Your task to perform on an android device: turn off location history Image 0: 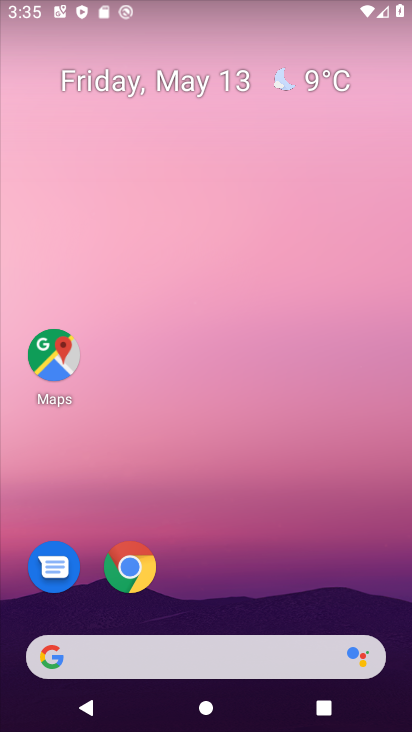
Step 0: drag from (171, 601) to (212, 120)
Your task to perform on an android device: turn off location history Image 1: 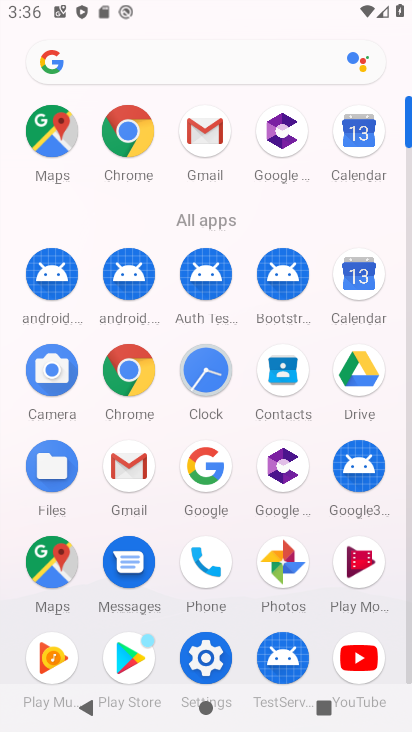
Step 1: click (207, 659)
Your task to perform on an android device: turn off location history Image 2: 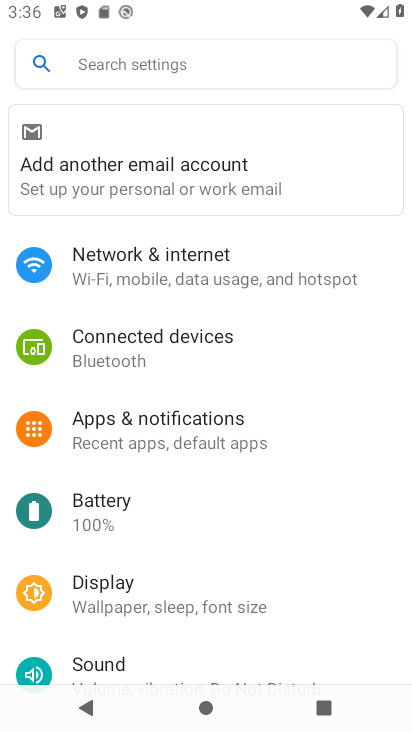
Step 2: drag from (253, 603) to (215, 335)
Your task to perform on an android device: turn off location history Image 3: 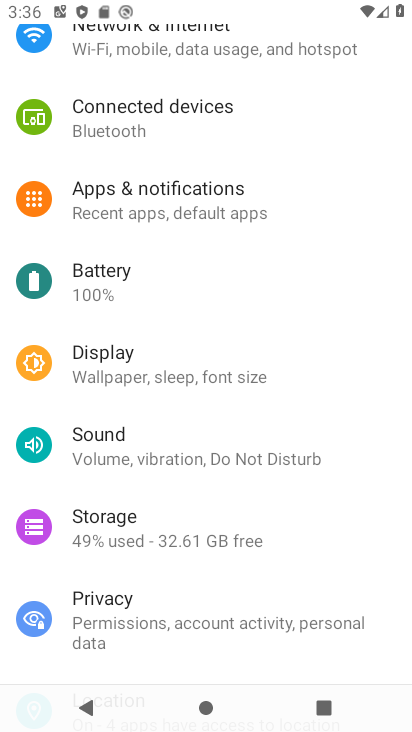
Step 3: drag from (196, 284) to (217, 75)
Your task to perform on an android device: turn off location history Image 4: 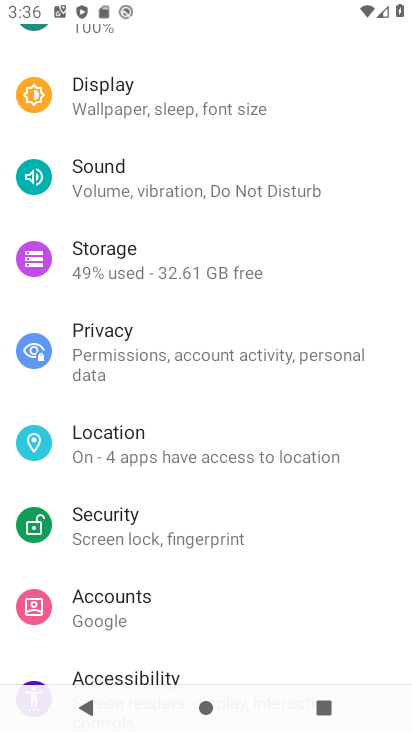
Step 4: click (160, 455)
Your task to perform on an android device: turn off location history Image 5: 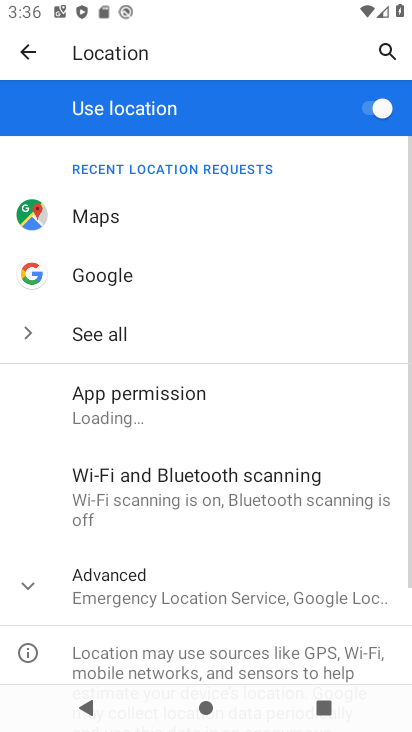
Step 5: drag from (195, 571) to (173, 374)
Your task to perform on an android device: turn off location history Image 6: 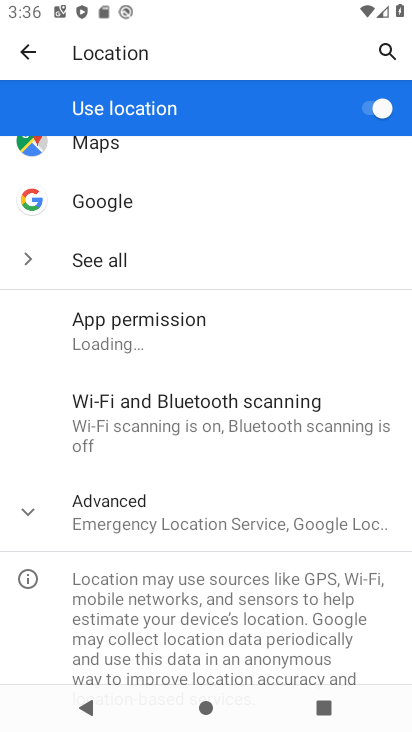
Step 6: click (102, 505)
Your task to perform on an android device: turn off location history Image 7: 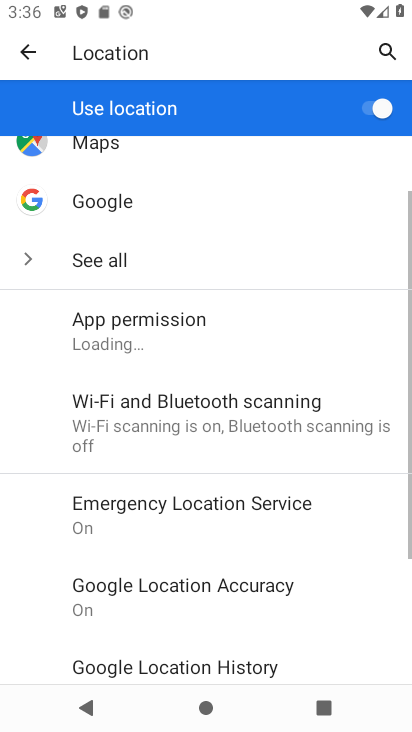
Step 7: drag from (224, 499) to (209, 325)
Your task to perform on an android device: turn off location history Image 8: 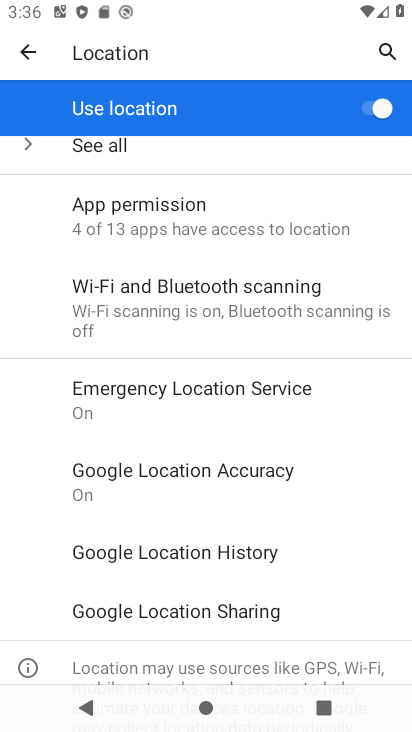
Step 8: click (218, 559)
Your task to perform on an android device: turn off location history Image 9: 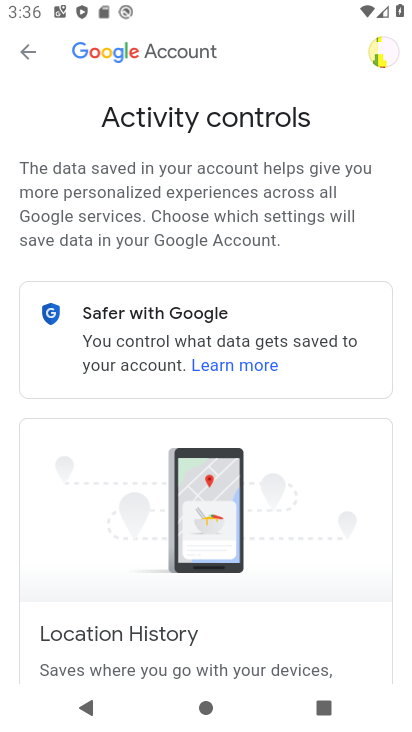
Step 9: drag from (224, 647) to (239, 121)
Your task to perform on an android device: turn off location history Image 10: 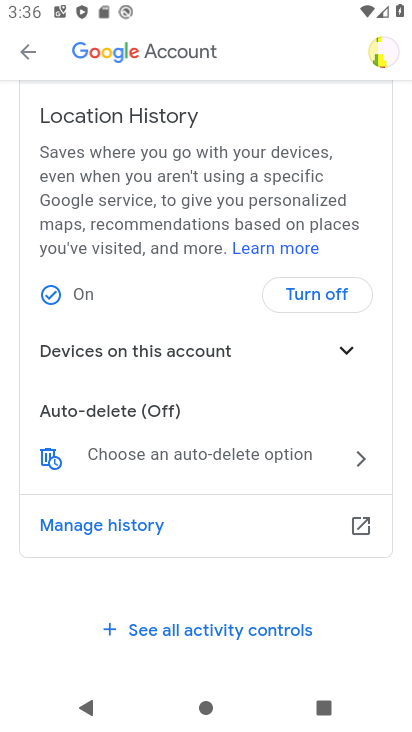
Step 10: click (292, 303)
Your task to perform on an android device: turn off location history Image 11: 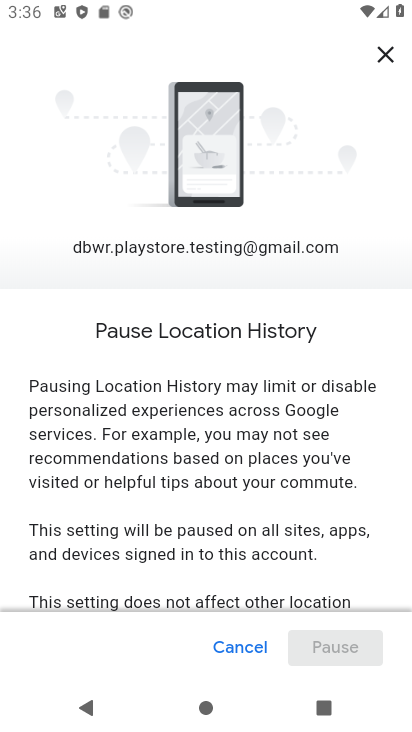
Step 11: drag from (316, 532) to (300, 45)
Your task to perform on an android device: turn off location history Image 12: 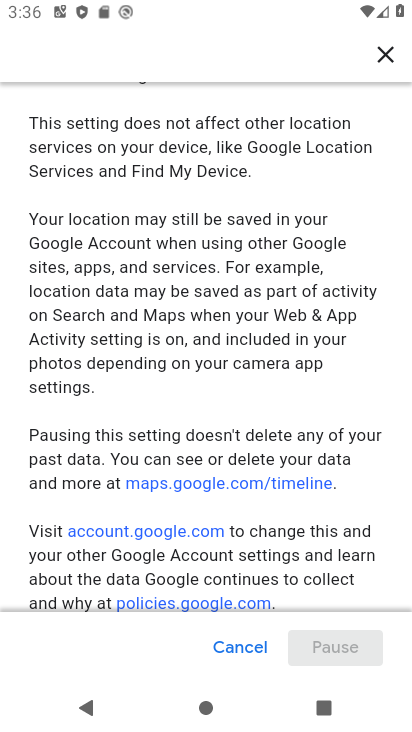
Step 12: drag from (299, 526) to (328, 22)
Your task to perform on an android device: turn off location history Image 13: 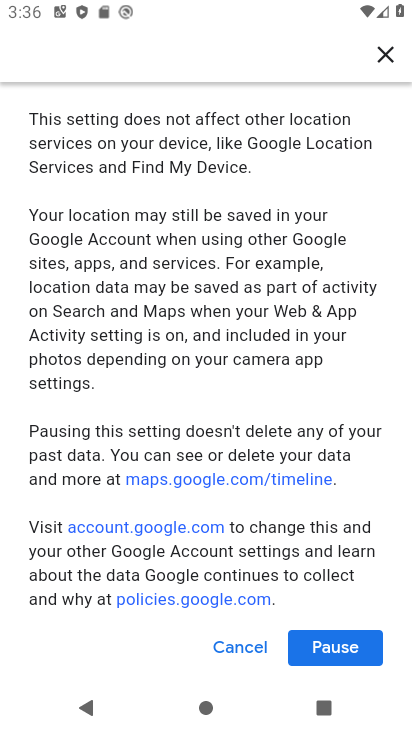
Step 13: drag from (296, 672) to (321, 418)
Your task to perform on an android device: turn off location history Image 14: 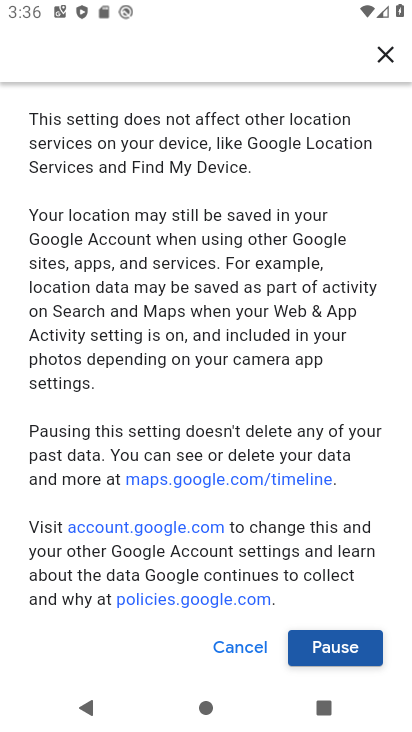
Step 14: click (322, 656)
Your task to perform on an android device: turn off location history Image 15: 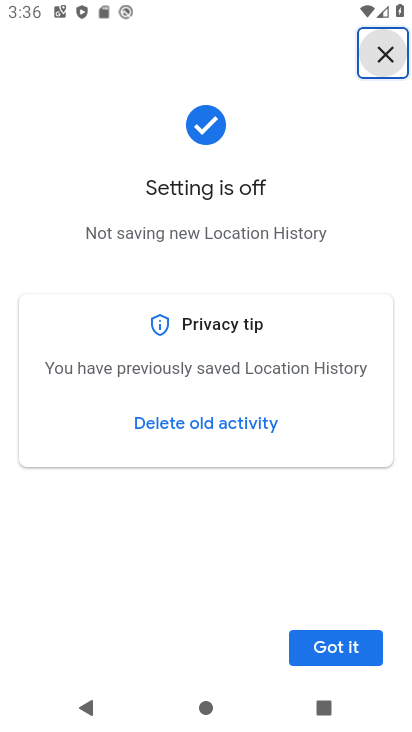
Step 15: click (322, 656)
Your task to perform on an android device: turn off location history Image 16: 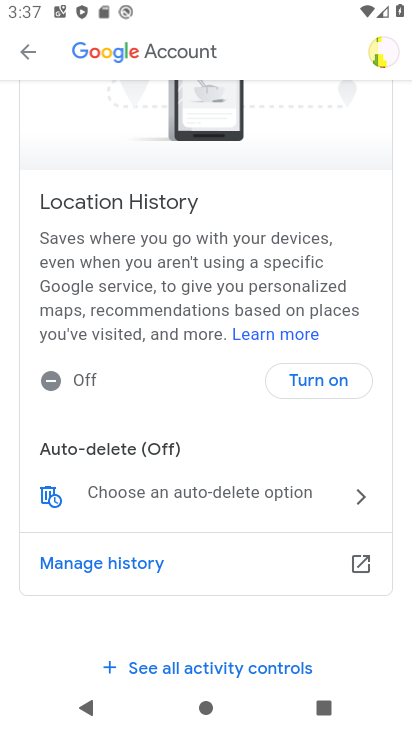
Step 16: task complete